Your task to perform on an android device: turn on priority inbox in the gmail app Image 0: 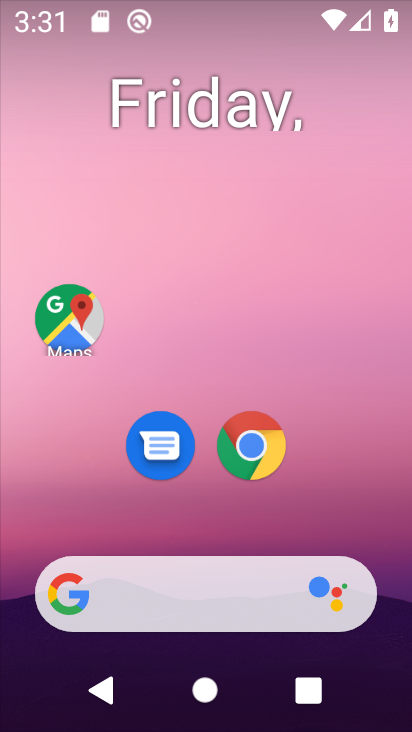
Step 0: drag from (404, 594) to (357, 52)
Your task to perform on an android device: turn on priority inbox in the gmail app Image 1: 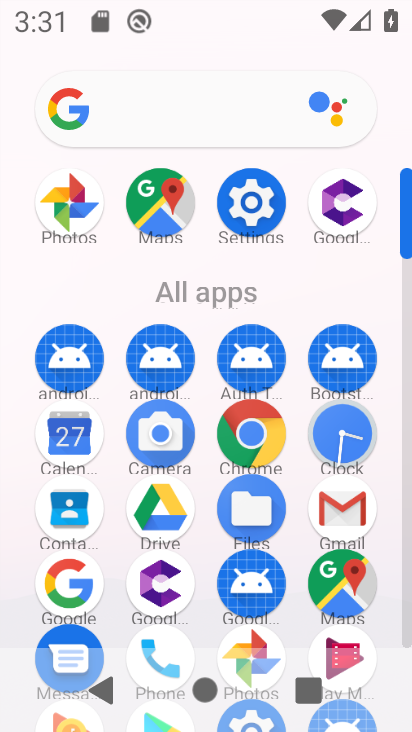
Step 1: click (362, 518)
Your task to perform on an android device: turn on priority inbox in the gmail app Image 2: 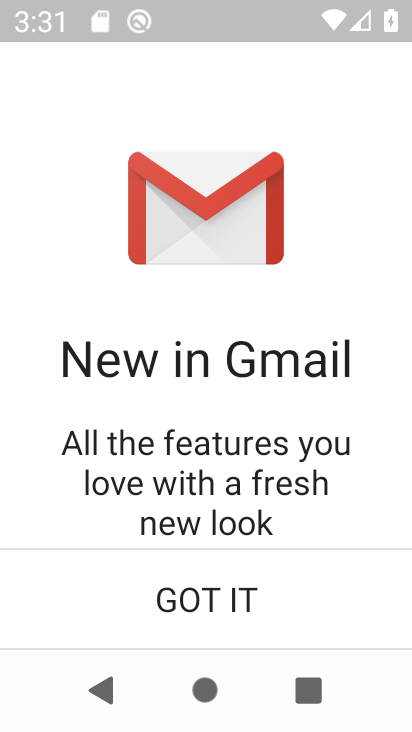
Step 2: click (223, 603)
Your task to perform on an android device: turn on priority inbox in the gmail app Image 3: 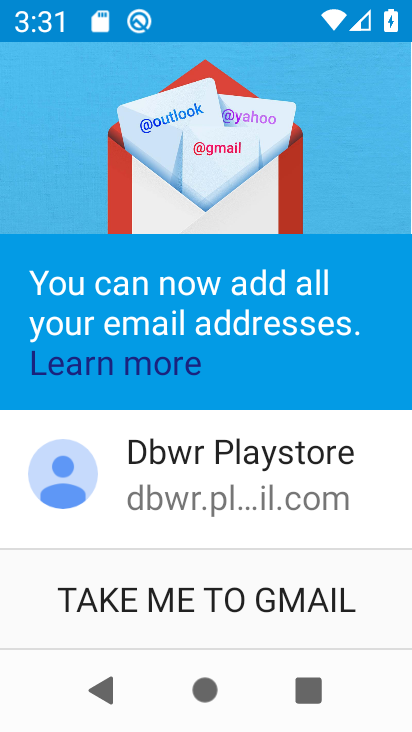
Step 3: click (223, 603)
Your task to perform on an android device: turn on priority inbox in the gmail app Image 4: 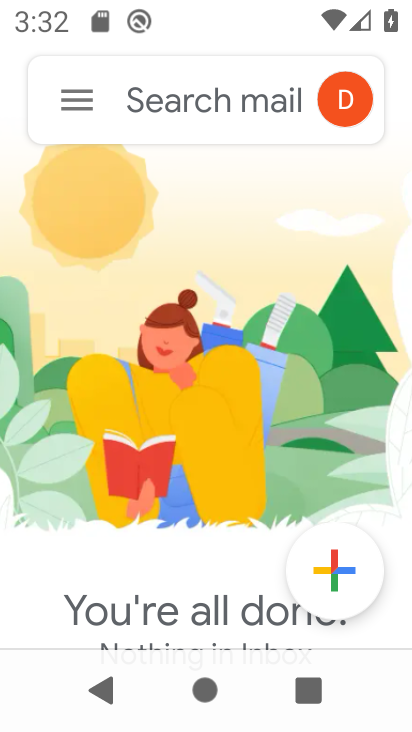
Step 4: click (78, 89)
Your task to perform on an android device: turn on priority inbox in the gmail app Image 5: 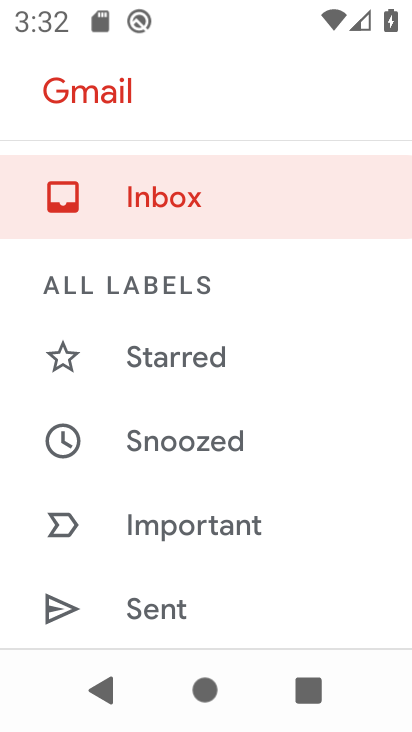
Step 5: drag from (238, 595) to (250, 44)
Your task to perform on an android device: turn on priority inbox in the gmail app Image 6: 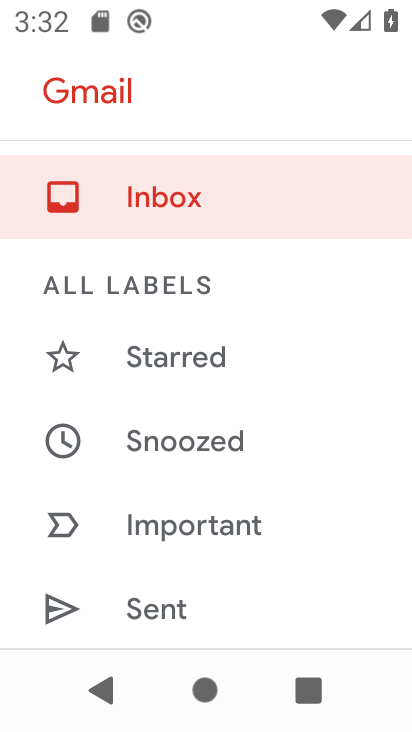
Step 6: drag from (183, 619) to (190, 23)
Your task to perform on an android device: turn on priority inbox in the gmail app Image 7: 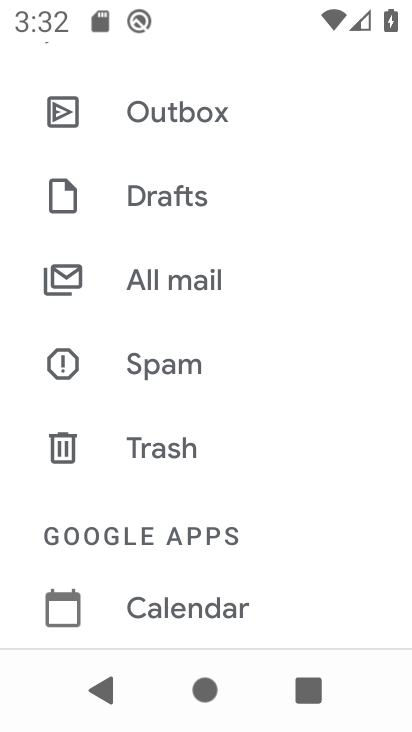
Step 7: drag from (162, 579) to (160, 117)
Your task to perform on an android device: turn on priority inbox in the gmail app Image 8: 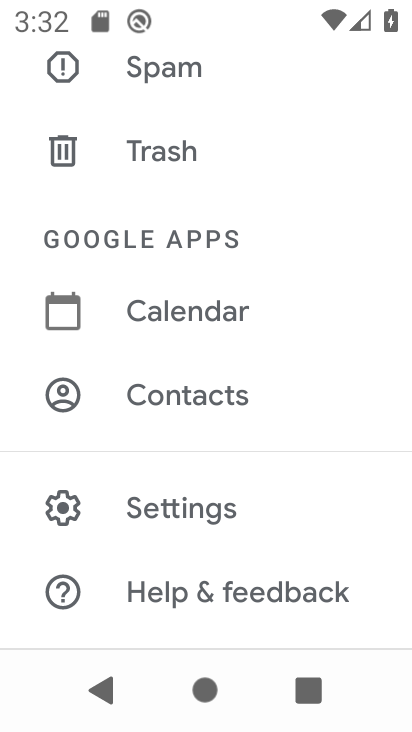
Step 8: click (204, 502)
Your task to perform on an android device: turn on priority inbox in the gmail app Image 9: 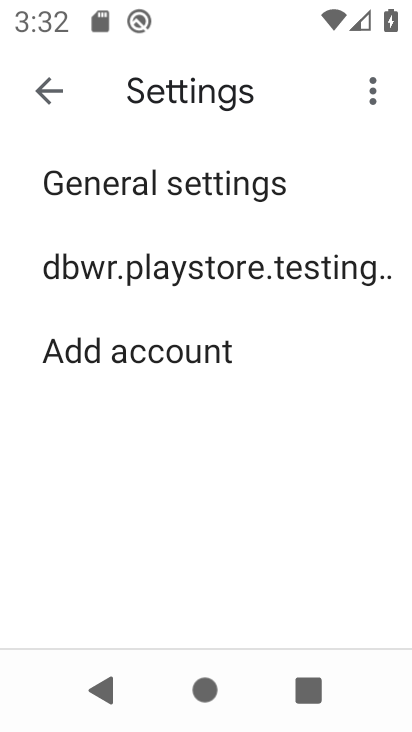
Step 9: click (254, 272)
Your task to perform on an android device: turn on priority inbox in the gmail app Image 10: 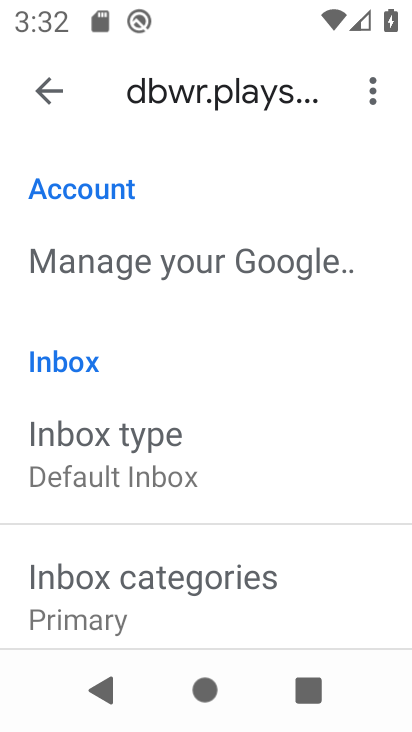
Step 10: click (214, 478)
Your task to perform on an android device: turn on priority inbox in the gmail app Image 11: 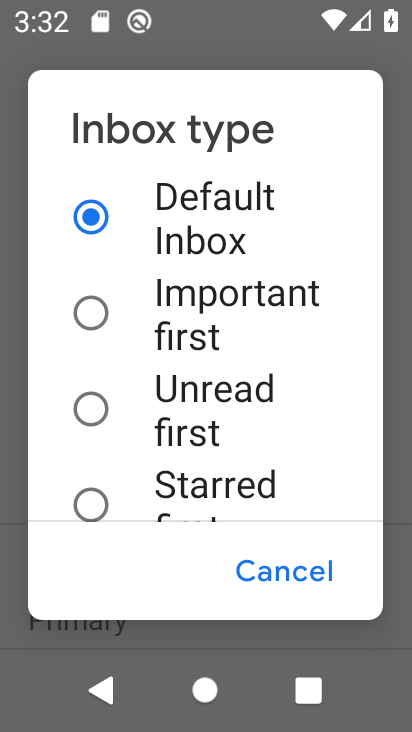
Step 11: drag from (218, 496) to (214, 152)
Your task to perform on an android device: turn on priority inbox in the gmail app Image 12: 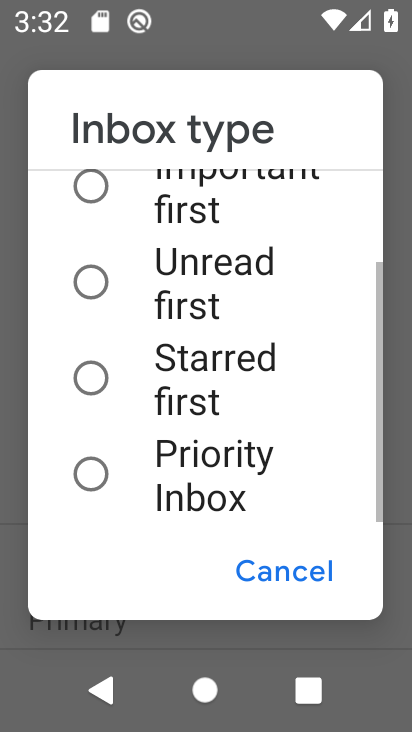
Step 12: click (213, 475)
Your task to perform on an android device: turn on priority inbox in the gmail app Image 13: 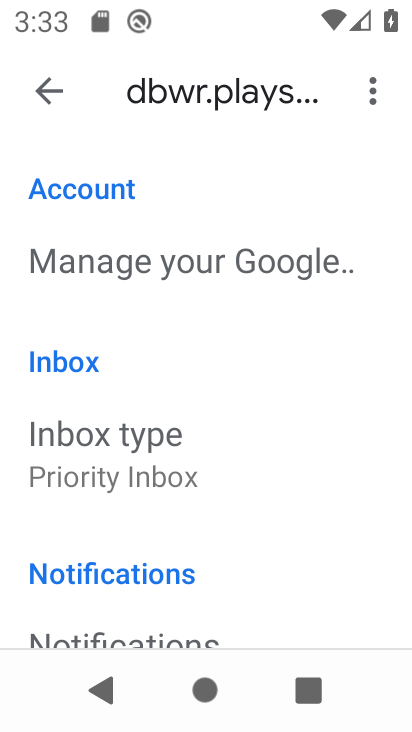
Step 13: task complete